Your task to perform on an android device: Open my contact list Image 0: 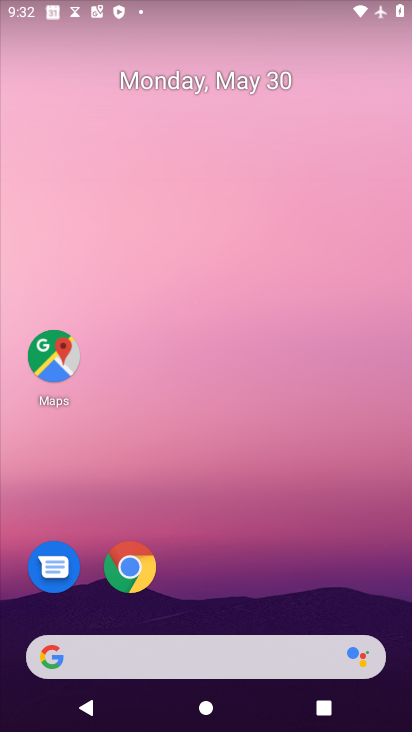
Step 0: drag from (263, 595) to (211, 225)
Your task to perform on an android device: Open my contact list Image 1: 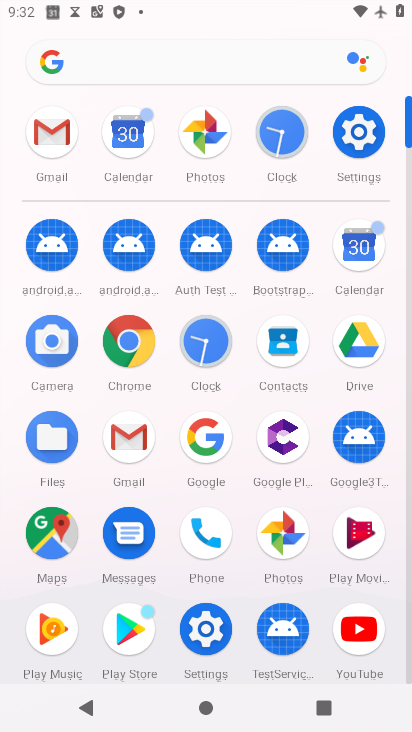
Step 1: click (280, 356)
Your task to perform on an android device: Open my contact list Image 2: 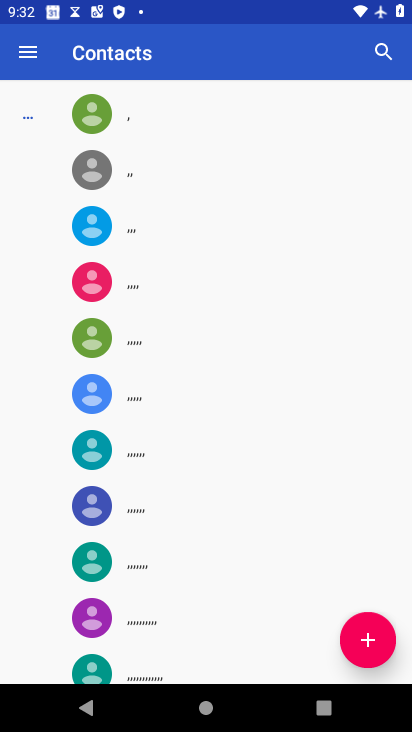
Step 2: task complete